Your task to perform on an android device: Open calendar and show me the third week of next month Image 0: 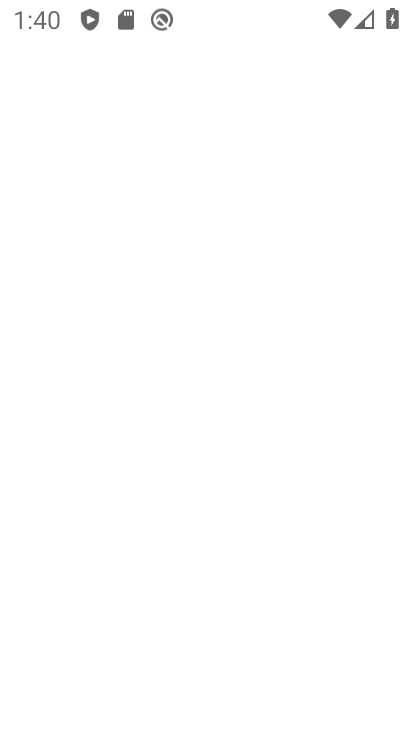
Step 0: press back button
Your task to perform on an android device: Open calendar and show me the third week of next month Image 1: 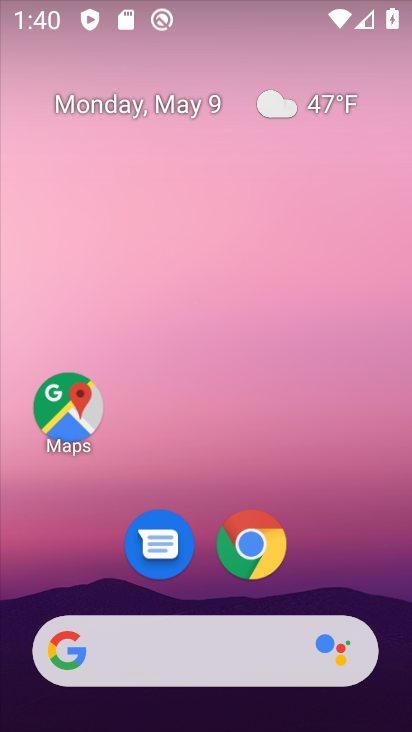
Step 1: drag from (207, 617) to (234, 223)
Your task to perform on an android device: Open calendar and show me the third week of next month Image 2: 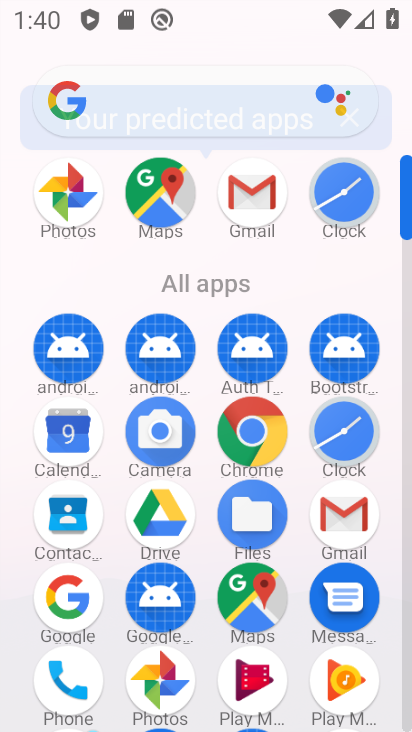
Step 2: click (85, 423)
Your task to perform on an android device: Open calendar and show me the third week of next month Image 3: 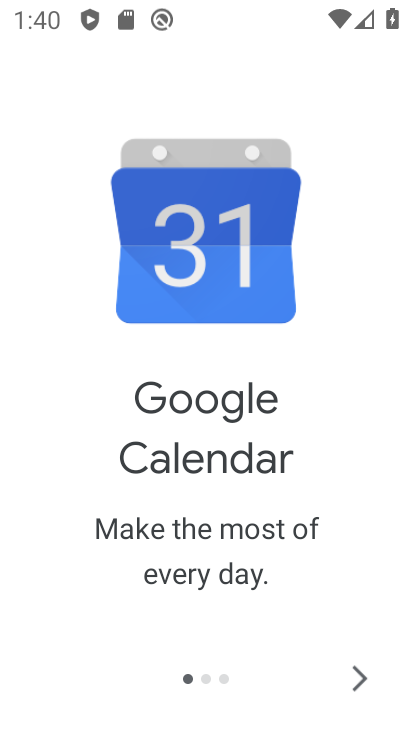
Step 3: click (367, 679)
Your task to perform on an android device: Open calendar and show me the third week of next month Image 4: 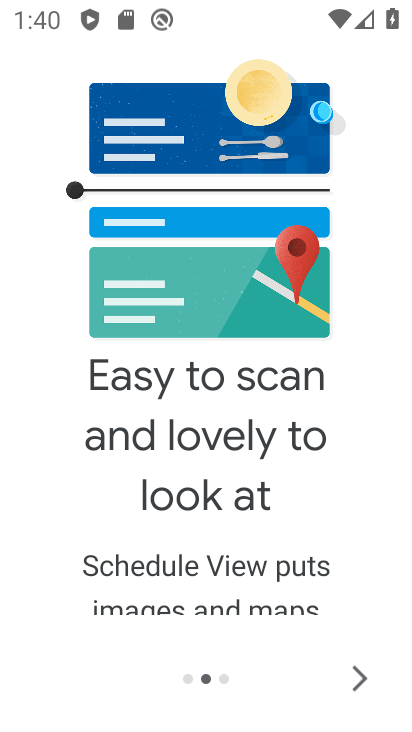
Step 4: click (367, 679)
Your task to perform on an android device: Open calendar and show me the third week of next month Image 5: 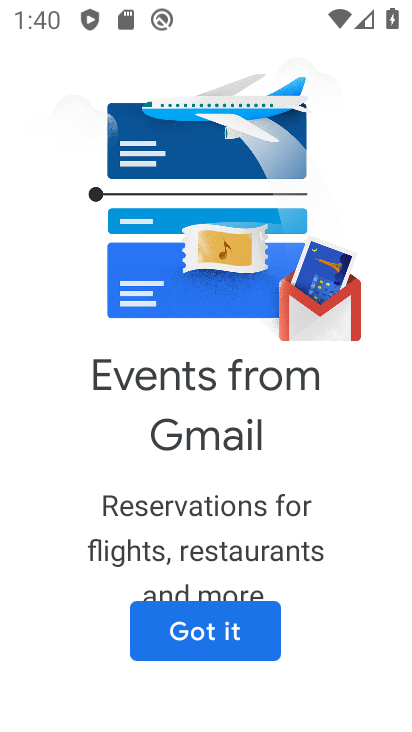
Step 5: click (367, 679)
Your task to perform on an android device: Open calendar and show me the third week of next month Image 6: 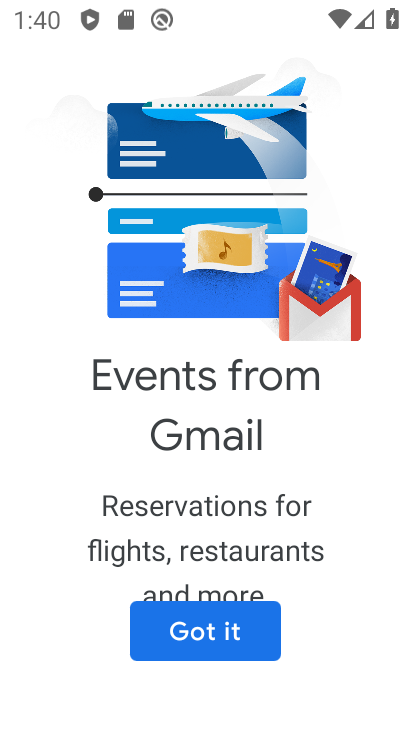
Step 6: click (367, 679)
Your task to perform on an android device: Open calendar and show me the third week of next month Image 7: 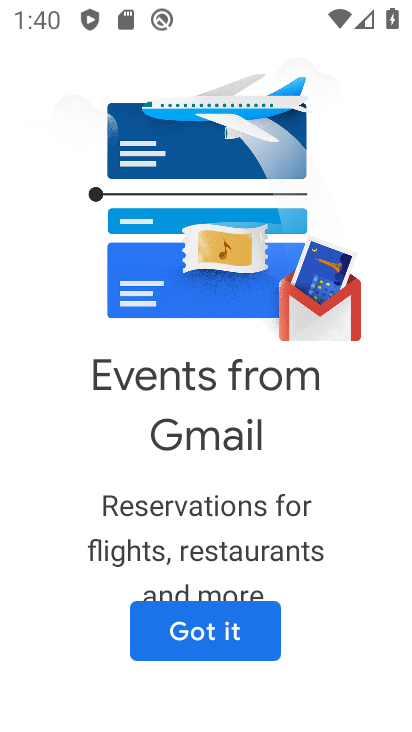
Step 7: click (237, 611)
Your task to perform on an android device: Open calendar and show me the third week of next month Image 8: 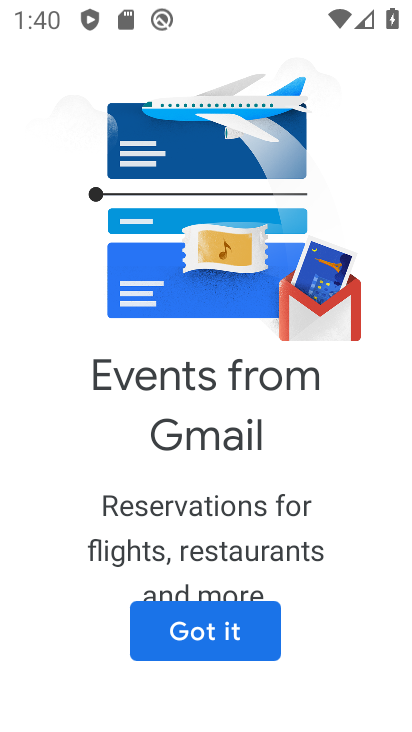
Step 8: click (237, 615)
Your task to perform on an android device: Open calendar and show me the third week of next month Image 9: 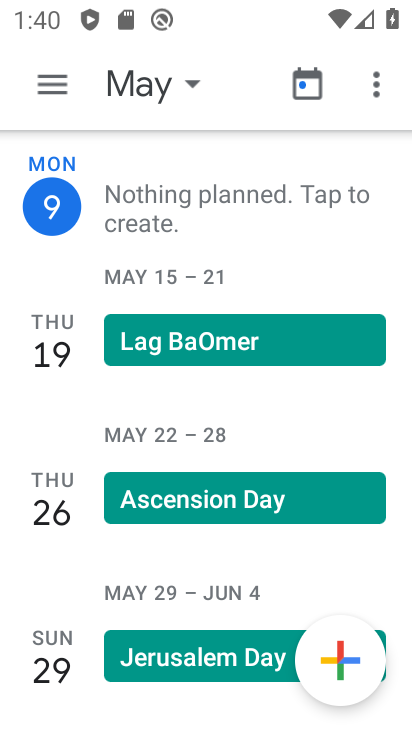
Step 9: click (61, 94)
Your task to perform on an android device: Open calendar and show me the third week of next month Image 10: 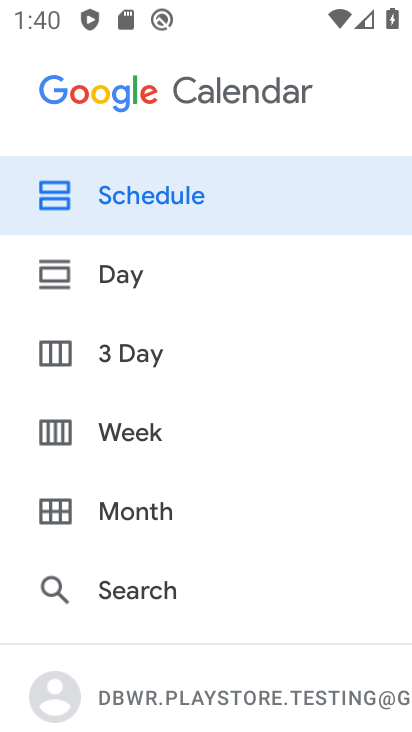
Step 10: click (200, 443)
Your task to perform on an android device: Open calendar and show me the third week of next month Image 11: 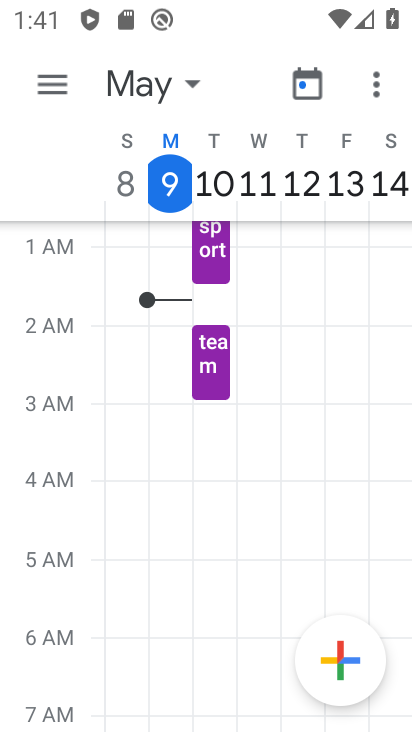
Step 11: click (161, 84)
Your task to perform on an android device: Open calendar and show me the third week of next month Image 12: 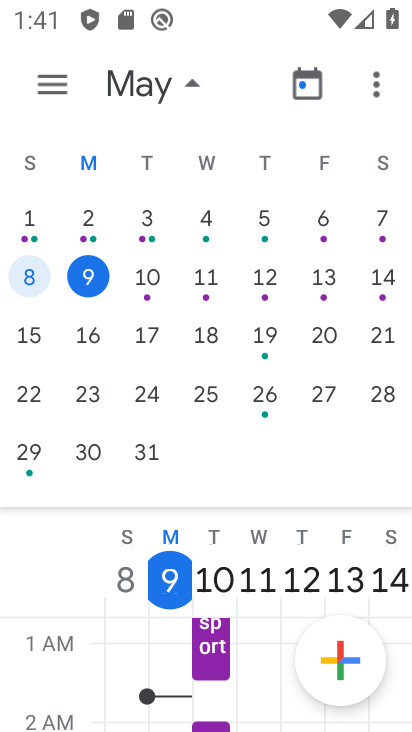
Step 12: drag from (354, 432) to (10, 455)
Your task to perform on an android device: Open calendar and show me the third week of next month Image 13: 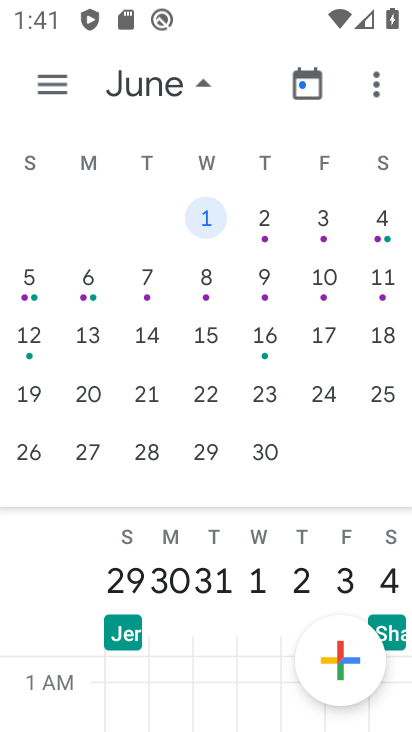
Step 13: click (40, 387)
Your task to perform on an android device: Open calendar and show me the third week of next month Image 14: 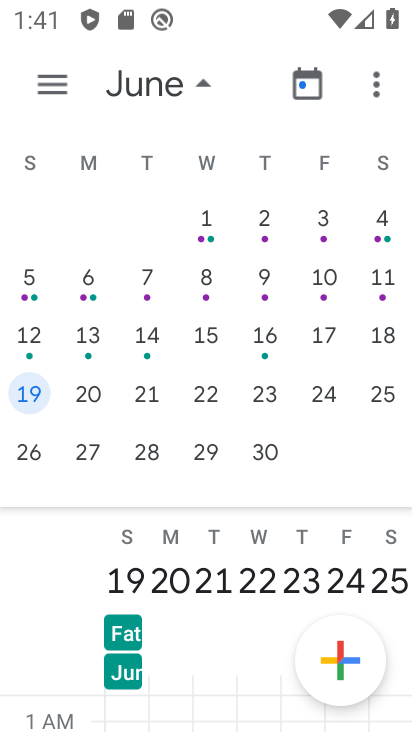
Step 14: click (203, 85)
Your task to perform on an android device: Open calendar and show me the third week of next month Image 15: 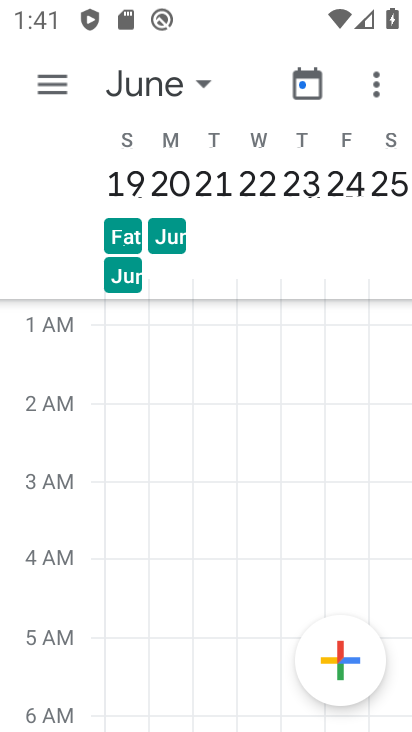
Step 15: task complete